Your task to perform on an android device: delete browsing data in the chrome app Image 0: 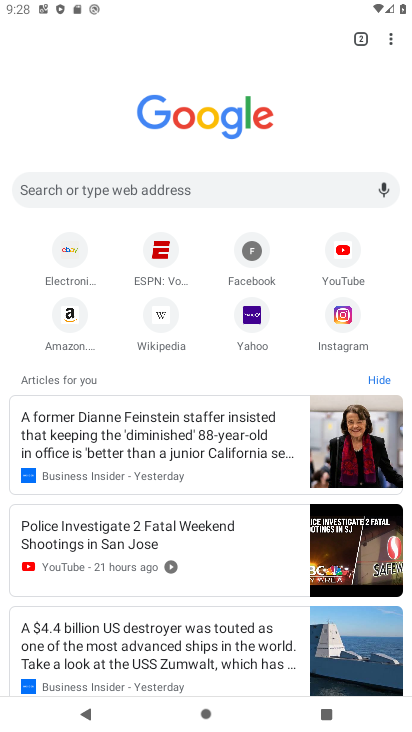
Step 0: click (391, 39)
Your task to perform on an android device: delete browsing data in the chrome app Image 1: 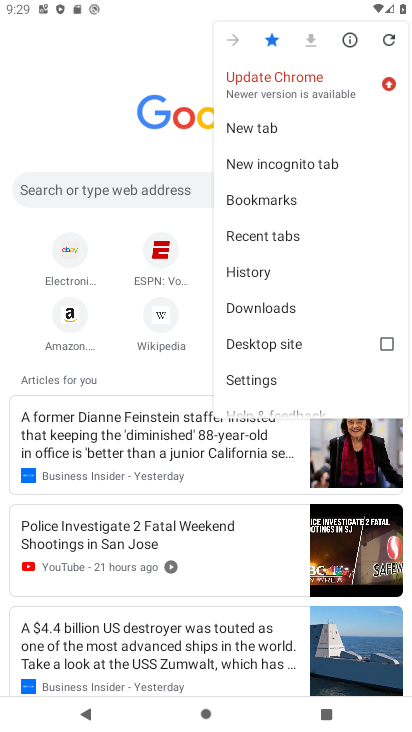
Step 1: click (263, 375)
Your task to perform on an android device: delete browsing data in the chrome app Image 2: 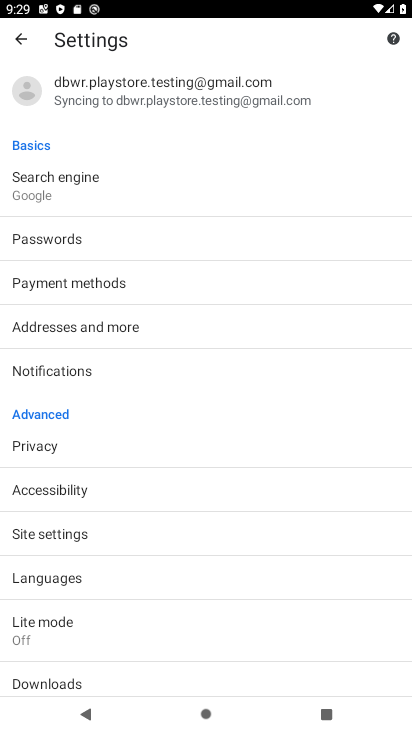
Step 2: click (56, 448)
Your task to perform on an android device: delete browsing data in the chrome app Image 3: 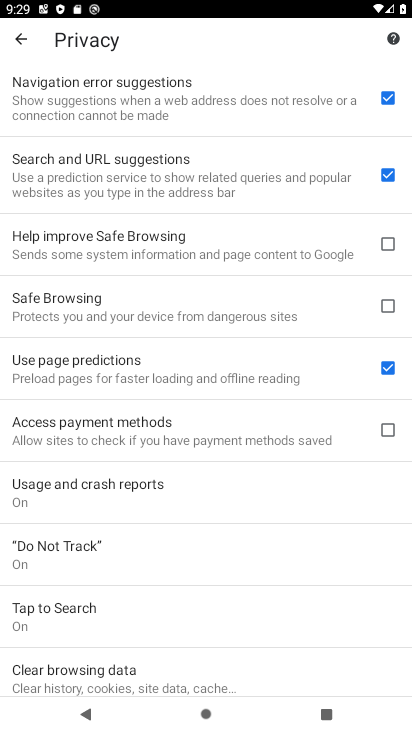
Step 3: click (124, 671)
Your task to perform on an android device: delete browsing data in the chrome app Image 4: 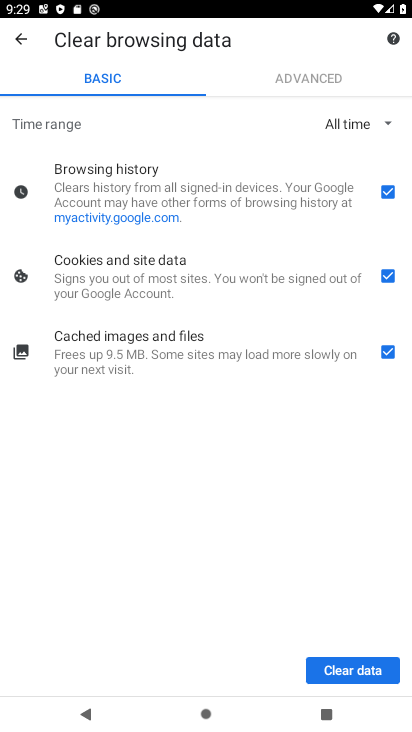
Step 4: click (343, 667)
Your task to perform on an android device: delete browsing data in the chrome app Image 5: 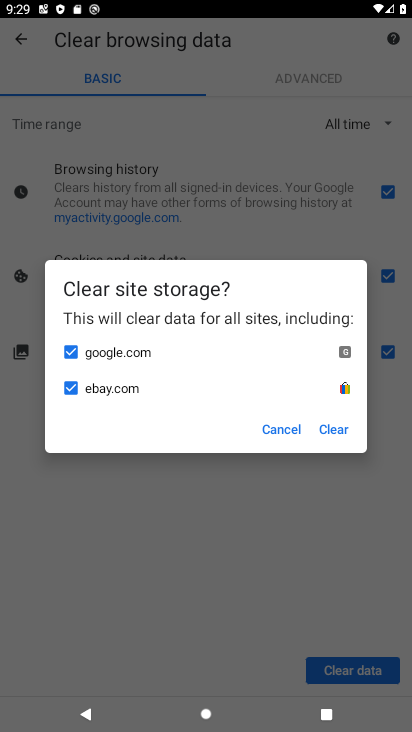
Step 5: click (331, 438)
Your task to perform on an android device: delete browsing data in the chrome app Image 6: 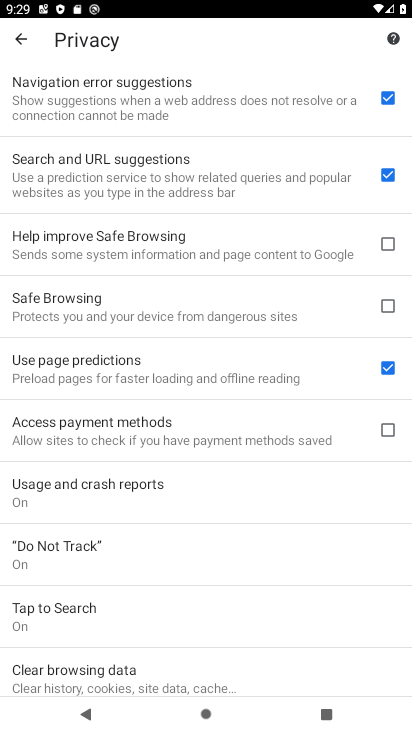
Step 6: task complete